Your task to perform on an android device: turn vacation reply on in the gmail app Image 0: 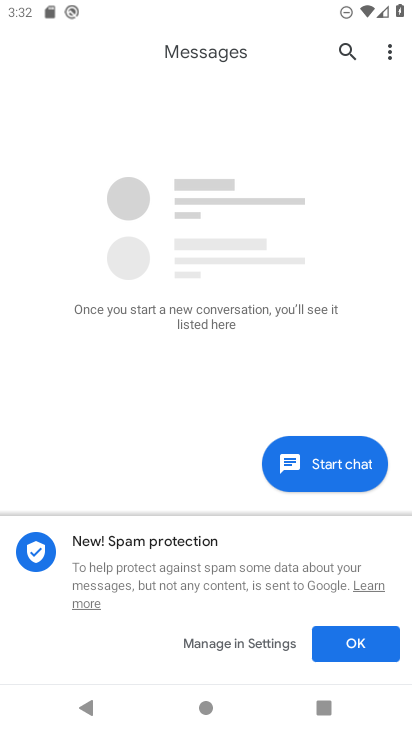
Step 0: drag from (222, 728) to (288, 207)
Your task to perform on an android device: turn vacation reply on in the gmail app Image 1: 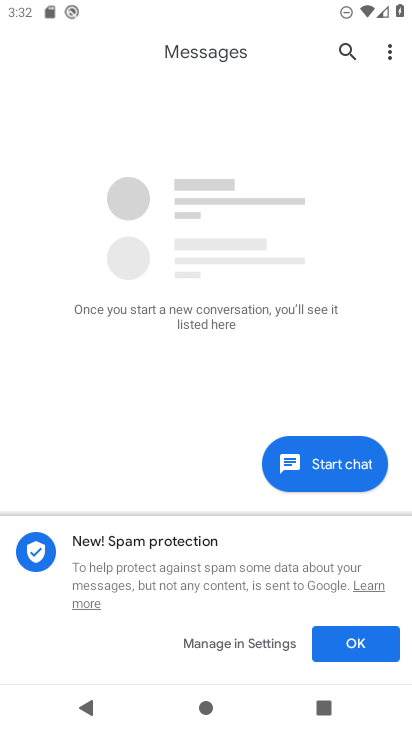
Step 1: press home button
Your task to perform on an android device: turn vacation reply on in the gmail app Image 2: 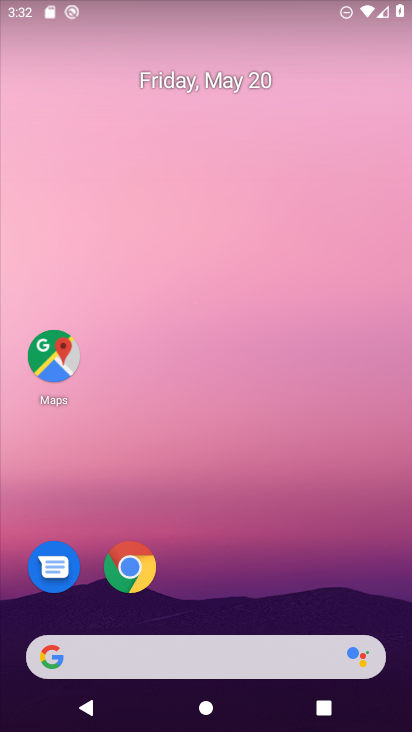
Step 2: drag from (230, 713) to (224, 118)
Your task to perform on an android device: turn vacation reply on in the gmail app Image 3: 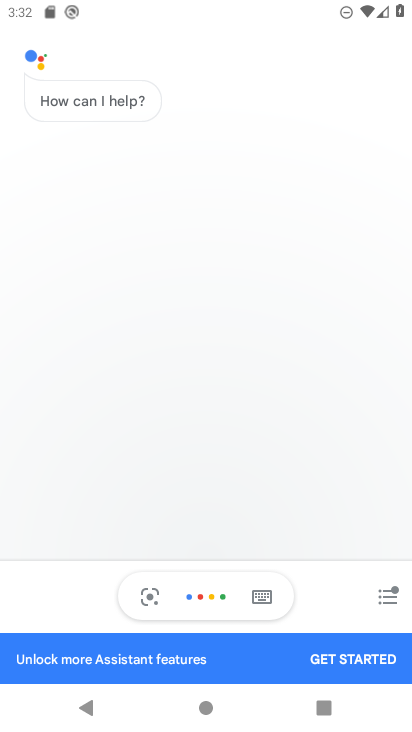
Step 3: press home button
Your task to perform on an android device: turn vacation reply on in the gmail app Image 4: 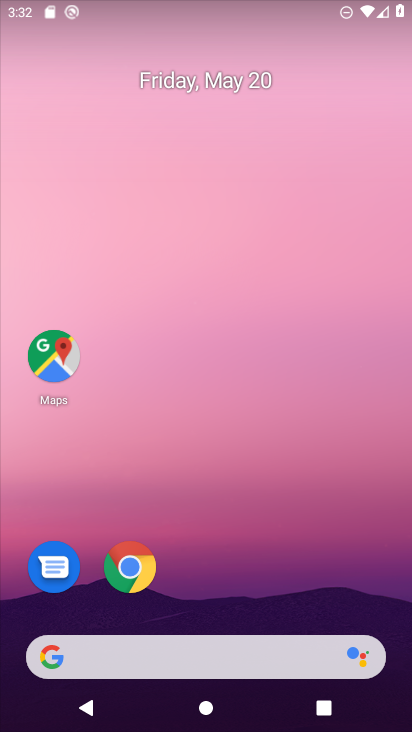
Step 4: drag from (240, 718) to (233, 28)
Your task to perform on an android device: turn vacation reply on in the gmail app Image 5: 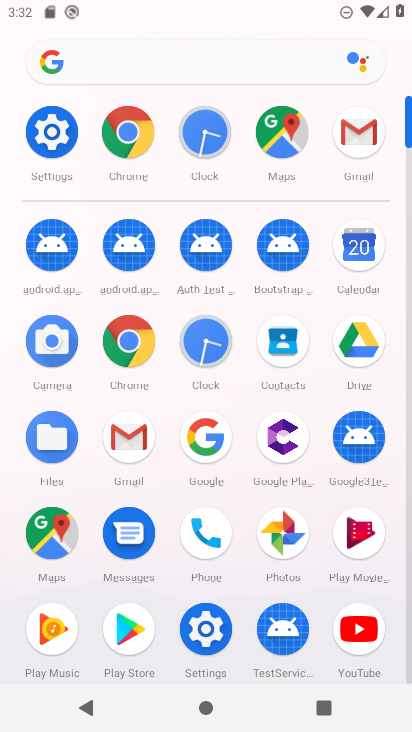
Step 5: click (123, 445)
Your task to perform on an android device: turn vacation reply on in the gmail app Image 6: 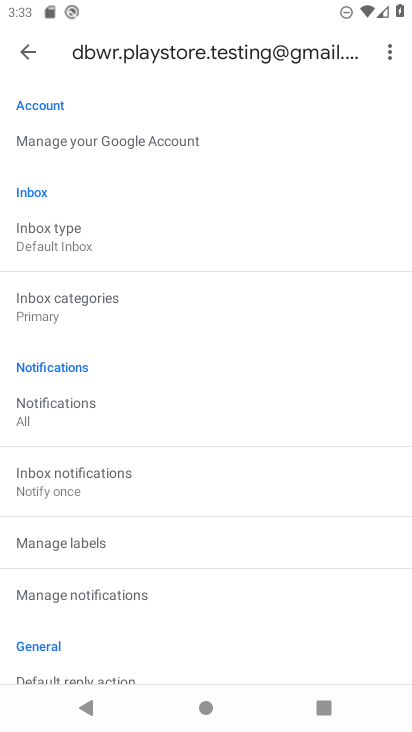
Step 6: drag from (109, 625) to (96, 181)
Your task to perform on an android device: turn vacation reply on in the gmail app Image 7: 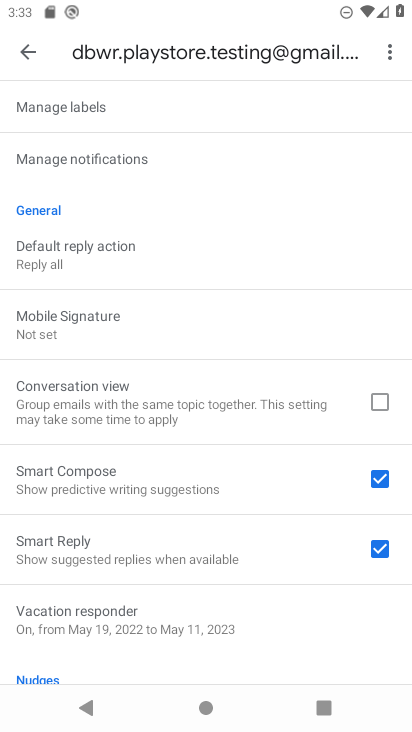
Step 7: click (141, 615)
Your task to perform on an android device: turn vacation reply on in the gmail app Image 8: 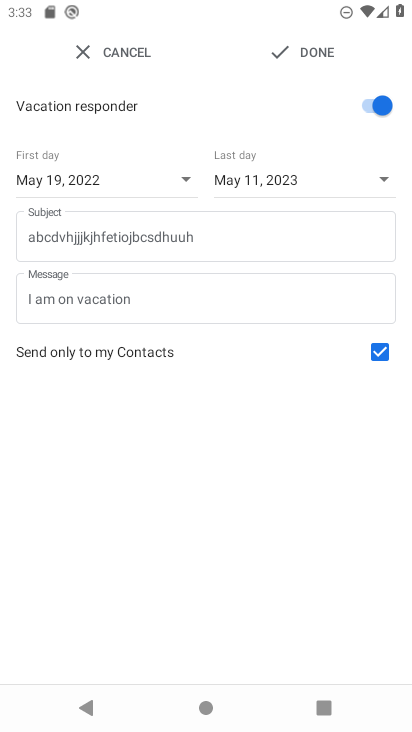
Step 8: task complete